Your task to perform on an android device: Open ESPN.com Image 0: 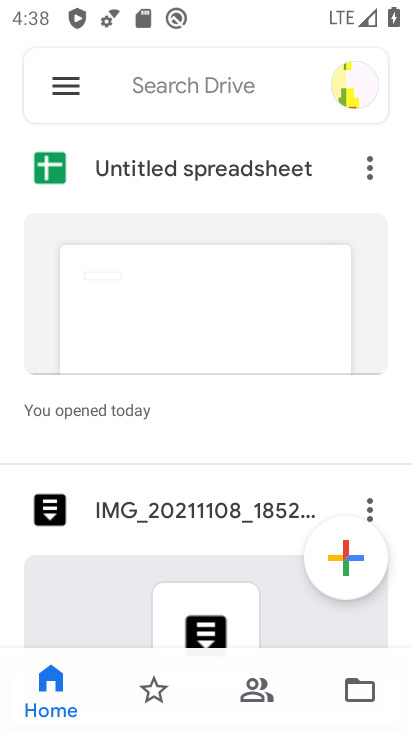
Step 0: press back button
Your task to perform on an android device: Open ESPN.com Image 1: 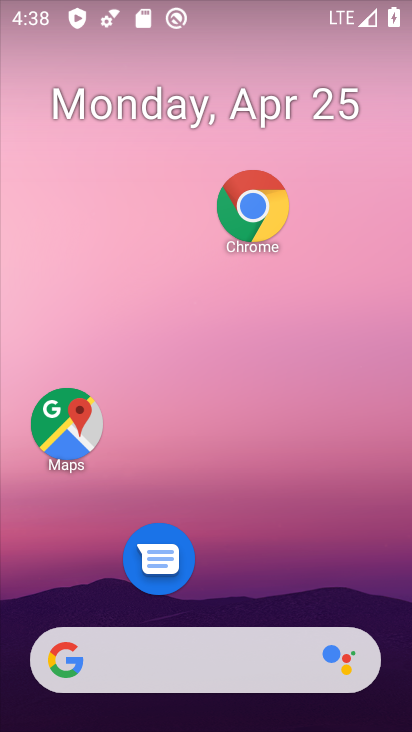
Step 1: click (252, 206)
Your task to perform on an android device: Open ESPN.com Image 2: 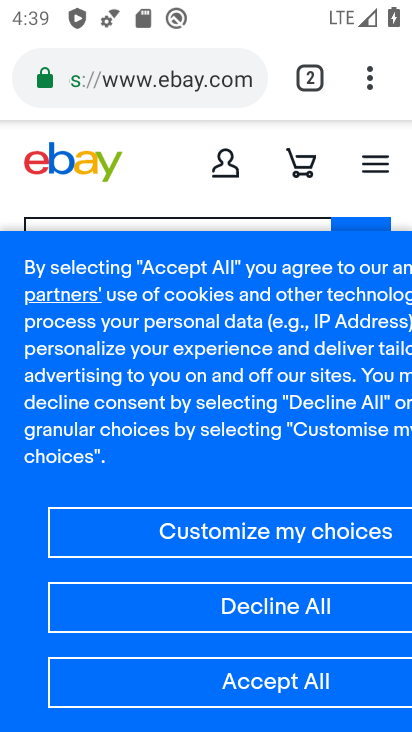
Step 2: click (232, 87)
Your task to perform on an android device: Open ESPN.com Image 3: 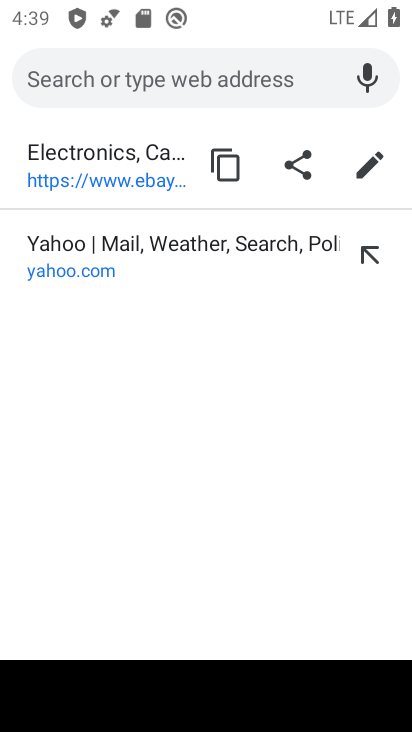
Step 3: click (232, 87)
Your task to perform on an android device: Open ESPN.com Image 4: 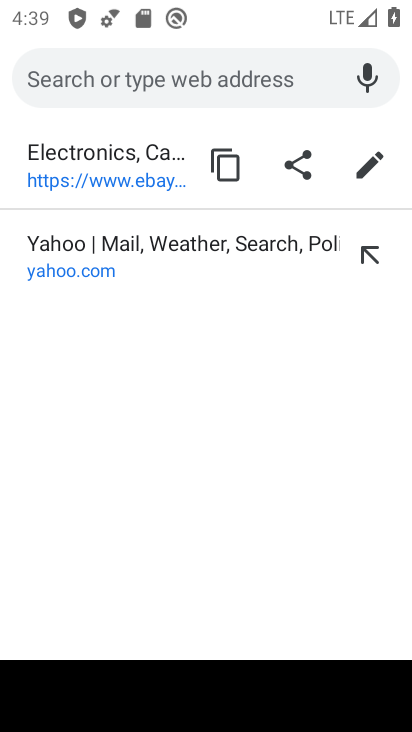
Step 4: type "ESPN.com"
Your task to perform on an android device: Open ESPN.com Image 5: 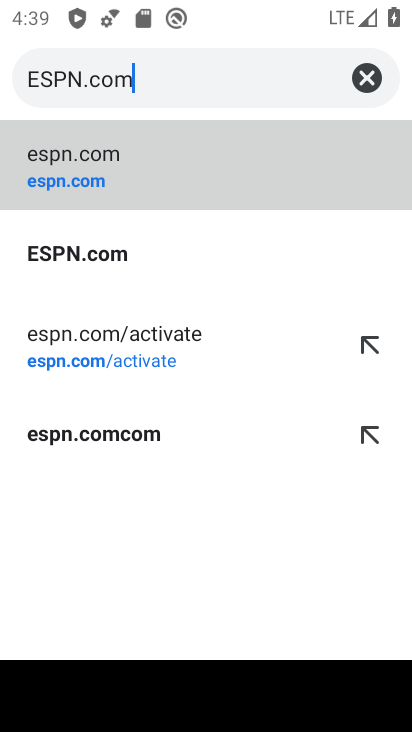
Step 5: click (107, 253)
Your task to perform on an android device: Open ESPN.com Image 6: 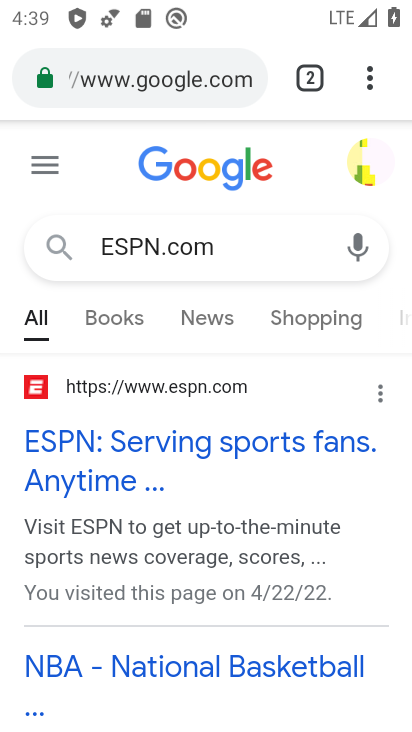
Step 6: task complete